Your task to perform on an android device: show emergency info Image 0: 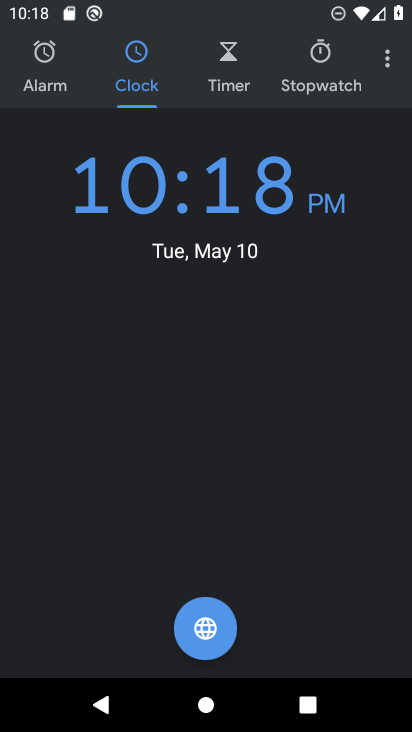
Step 0: type "reddi"
Your task to perform on an android device: show emergency info Image 1: 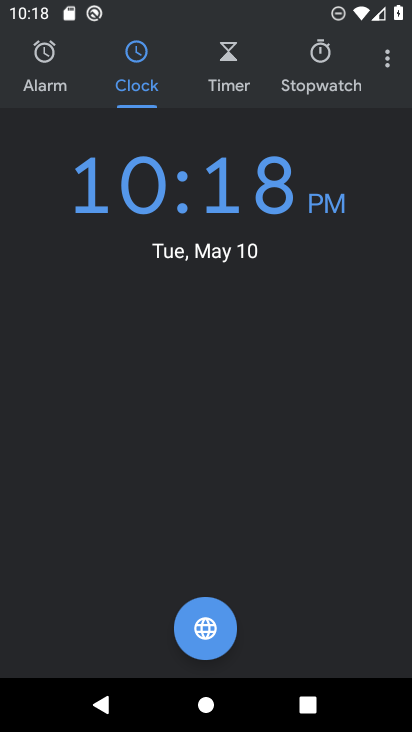
Step 1: press home button
Your task to perform on an android device: show emergency info Image 2: 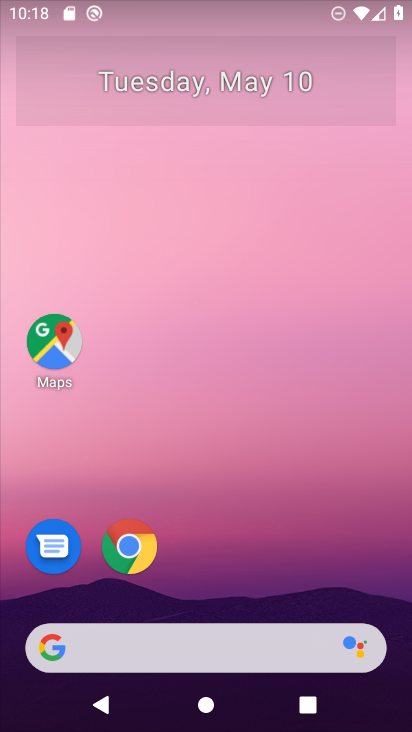
Step 2: drag from (307, 535) to (316, 0)
Your task to perform on an android device: show emergency info Image 3: 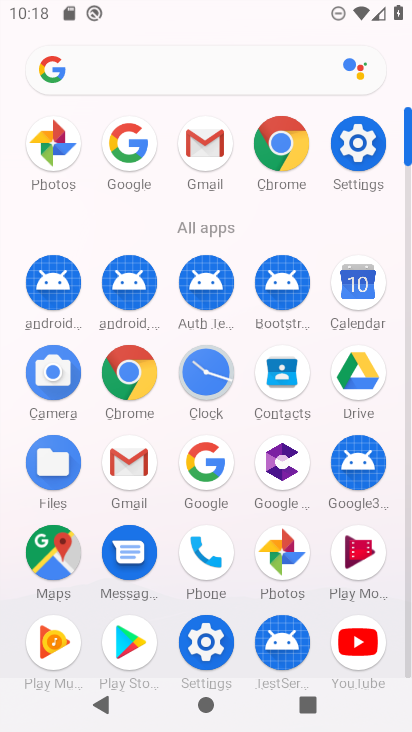
Step 3: click (345, 147)
Your task to perform on an android device: show emergency info Image 4: 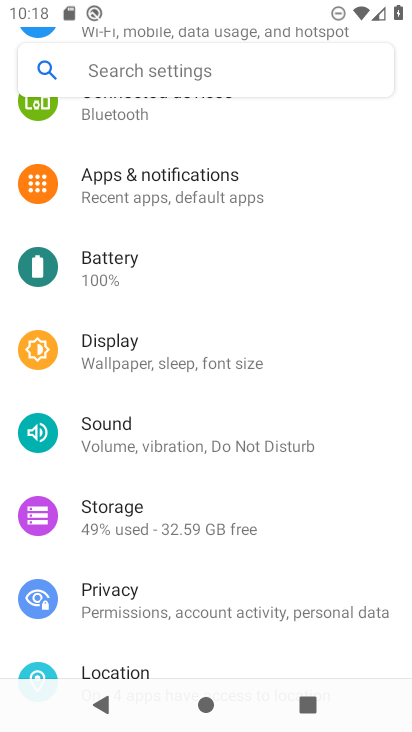
Step 4: drag from (187, 630) to (255, 133)
Your task to perform on an android device: show emergency info Image 5: 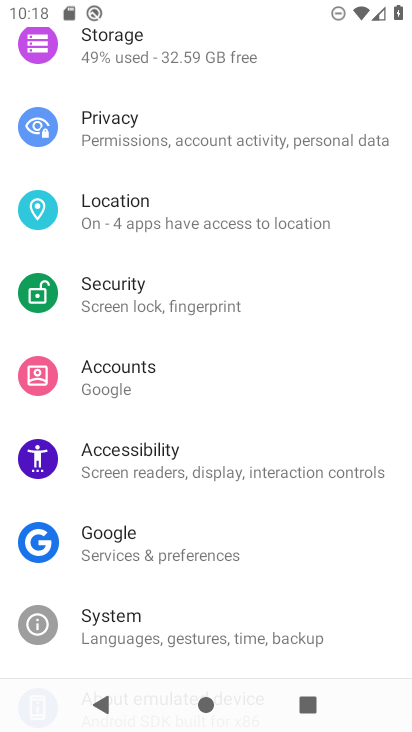
Step 5: drag from (150, 606) to (279, 177)
Your task to perform on an android device: show emergency info Image 6: 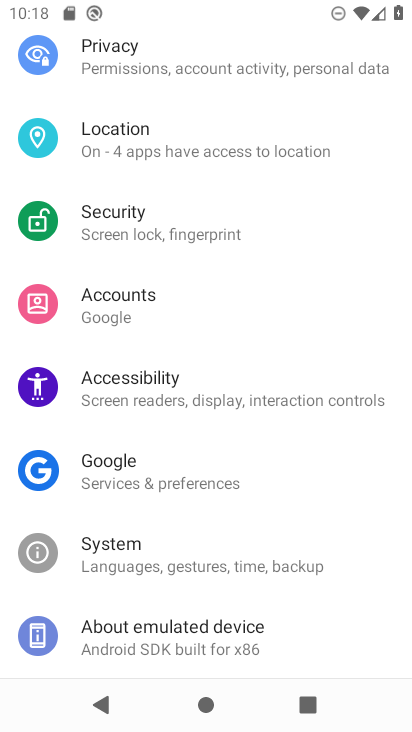
Step 6: click (153, 649)
Your task to perform on an android device: show emergency info Image 7: 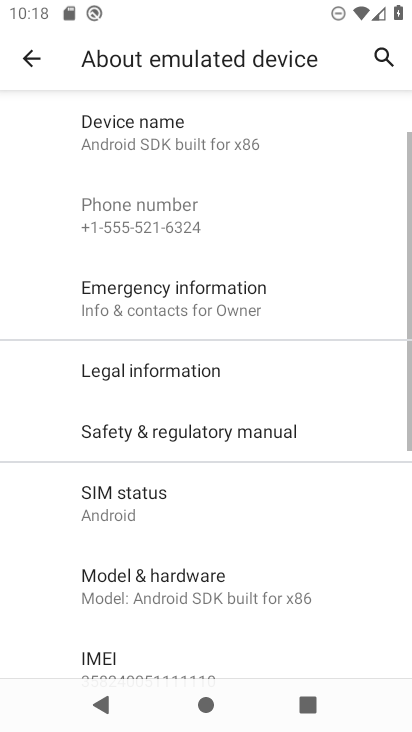
Step 7: click (199, 300)
Your task to perform on an android device: show emergency info Image 8: 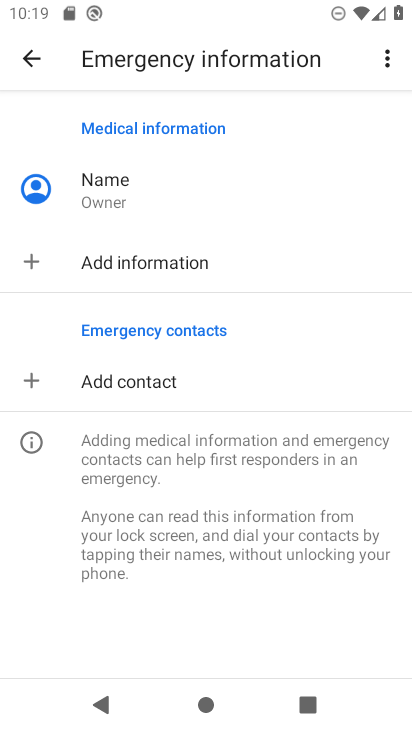
Step 8: task complete